Your task to perform on an android device: toggle show notifications on the lock screen Image 0: 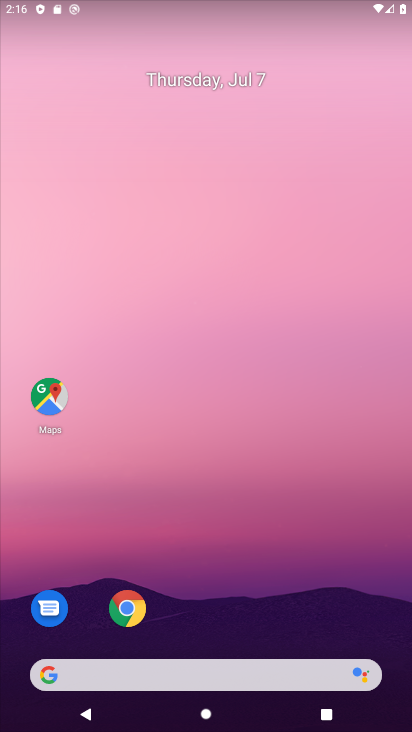
Step 0: drag from (199, 625) to (270, 56)
Your task to perform on an android device: toggle show notifications on the lock screen Image 1: 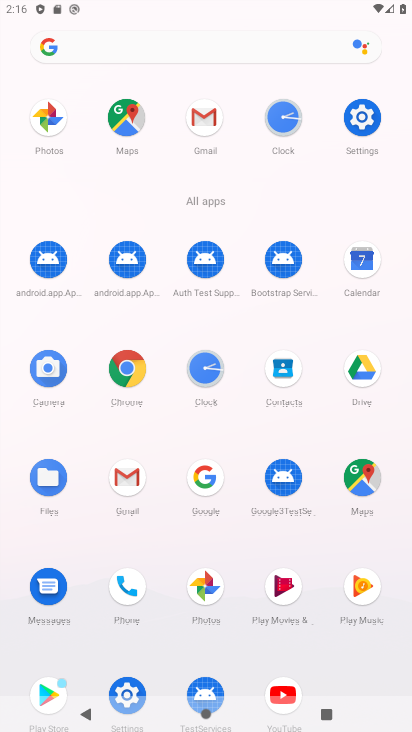
Step 1: click (363, 123)
Your task to perform on an android device: toggle show notifications on the lock screen Image 2: 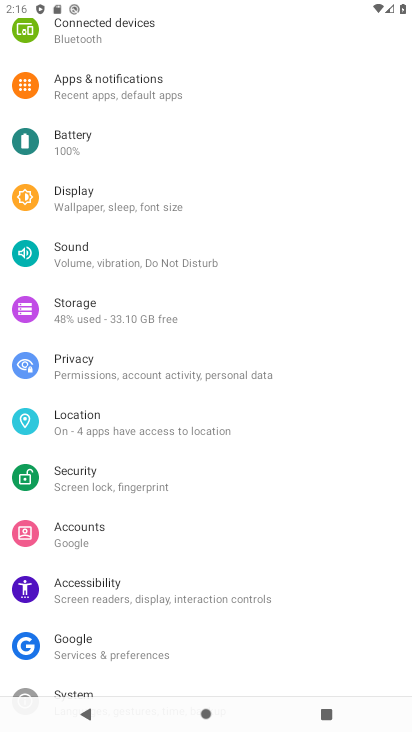
Step 2: click (121, 86)
Your task to perform on an android device: toggle show notifications on the lock screen Image 3: 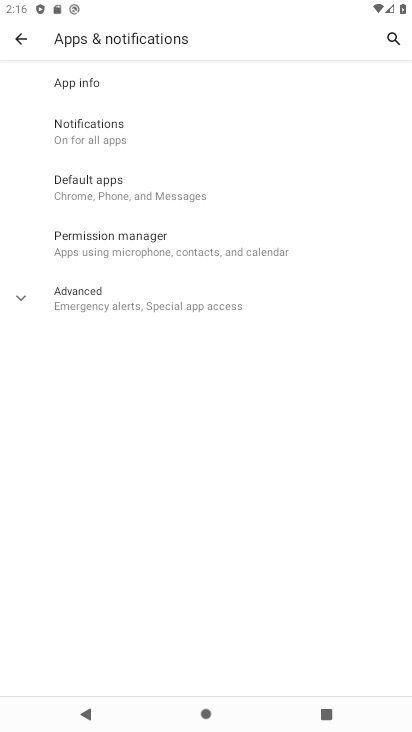
Step 3: click (137, 132)
Your task to perform on an android device: toggle show notifications on the lock screen Image 4: 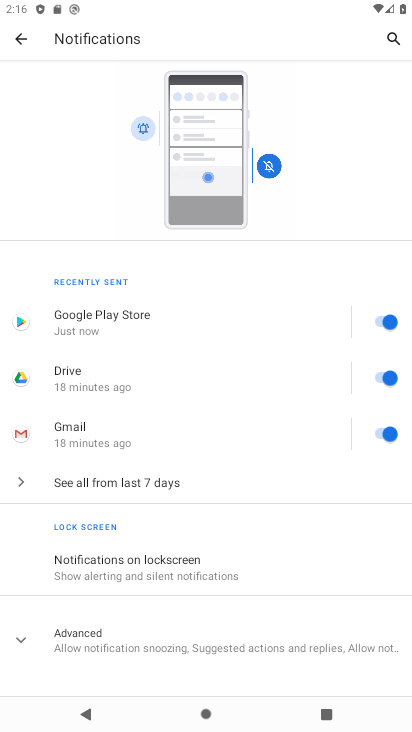
Step 4: click (138, 572)
Your task to perform on an android device: toggle show notifications on the lock screen Image 5: 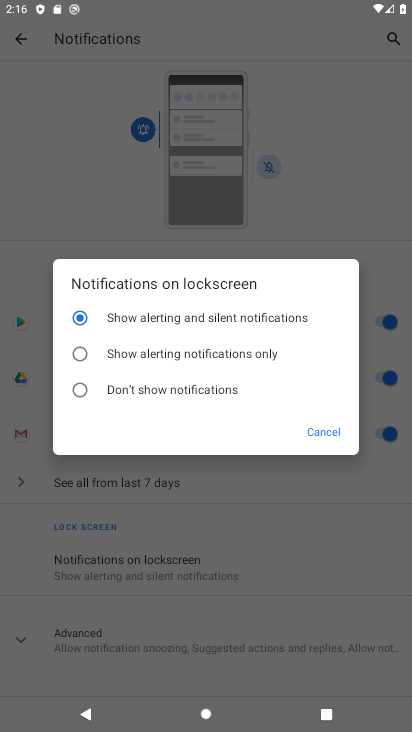
Step 5: click (80, 390)
Your task to perform on an android device: toggle show notifications on the lock screen Image 6: 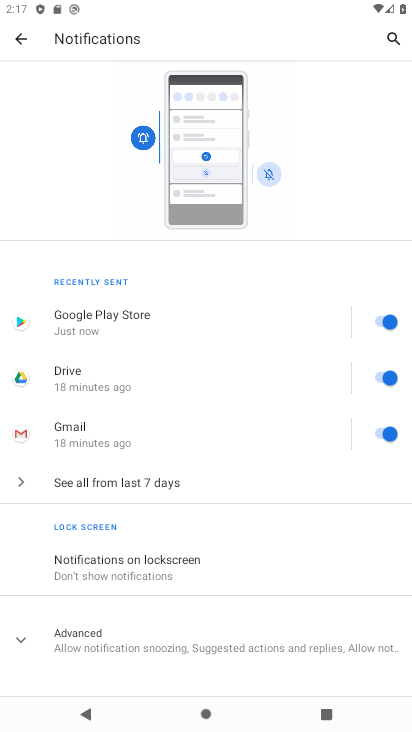
Step 6: task complete